Your task to perform on an android device: Go to Google maps Image 0: 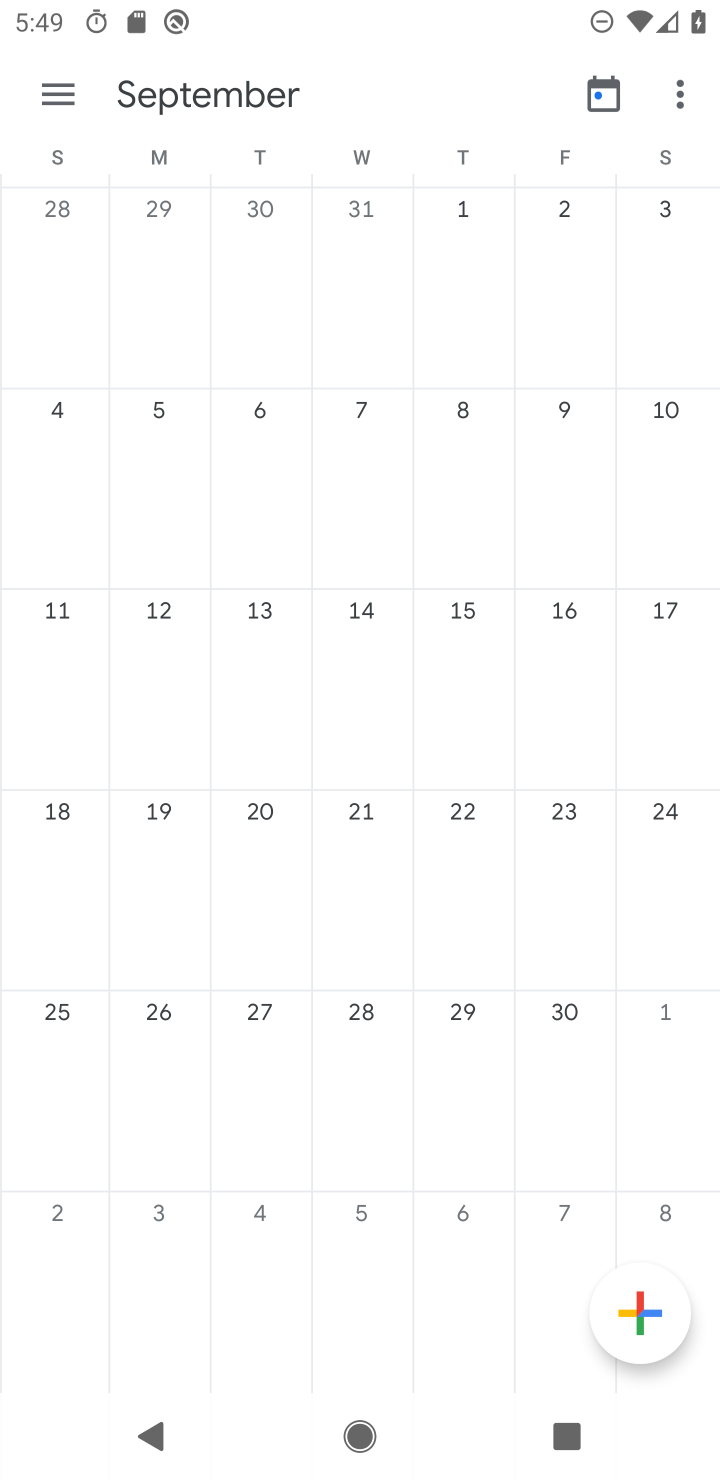
Step 0: press home button
Your task to perform on an android device: Go to Google maps Image 1: 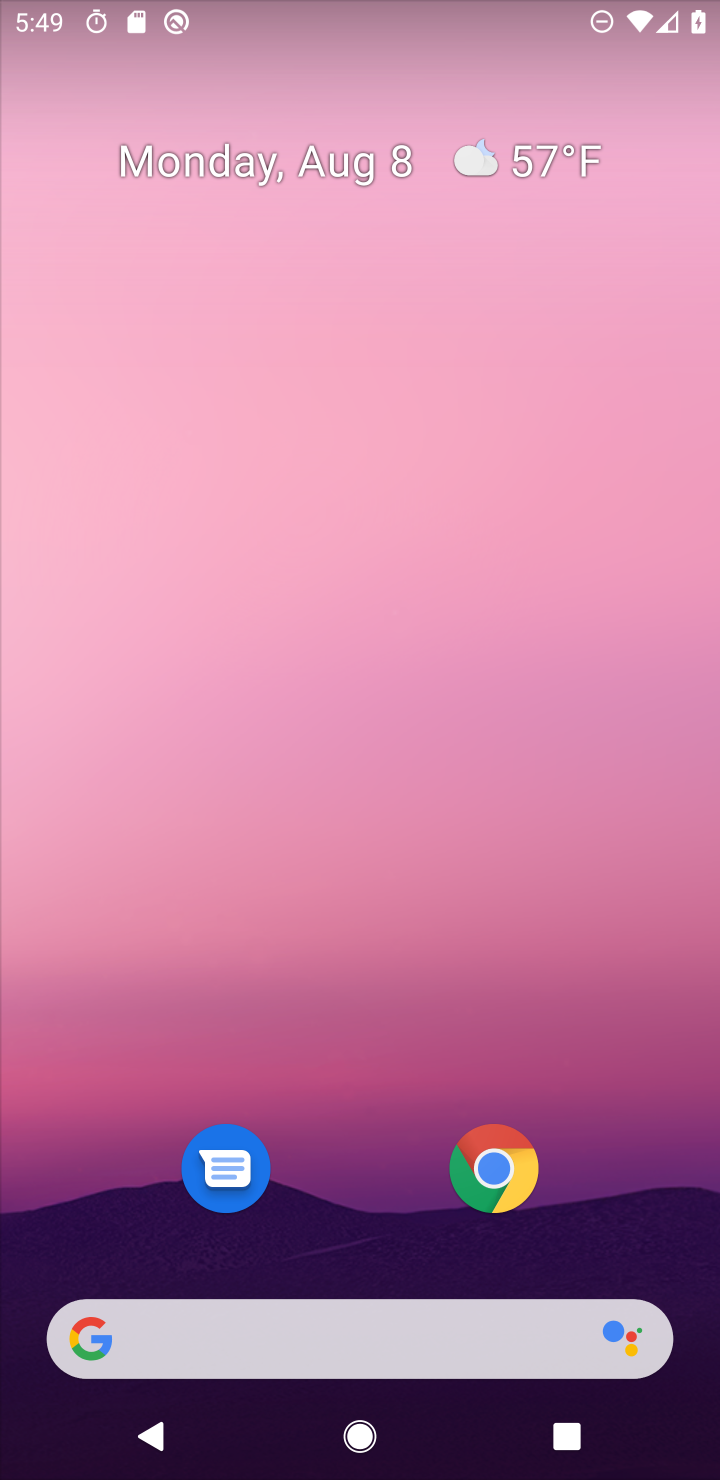
Step 1: drag from (351, 1300) to (267, 196)
Your task to perform on an android device: Go to Google maps Image 2: 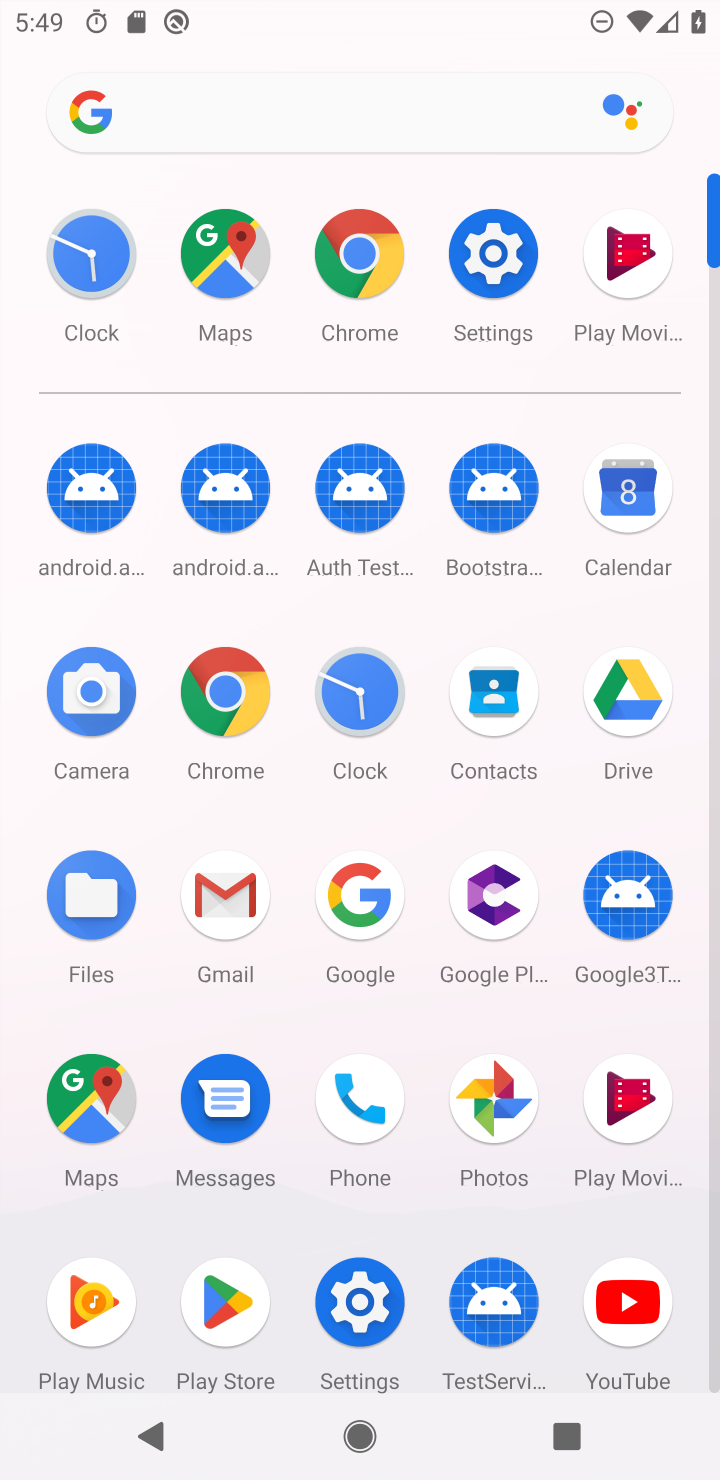
Step 2: click (107, 1086)
Your task to perform on an android device: Go to Google maps Image 3: 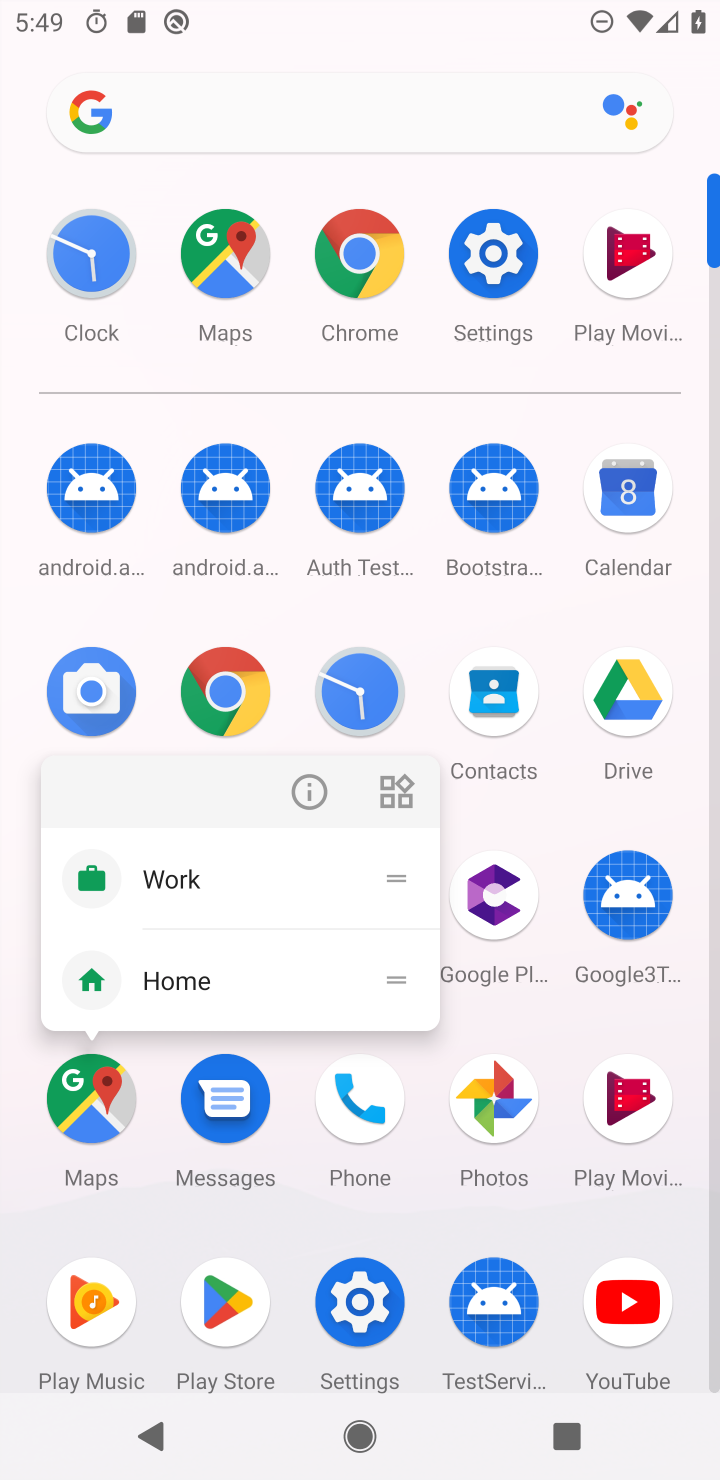
Step 3: click (125, 1122)
Your task to perform on an android device: Go to Google maps Image 4: 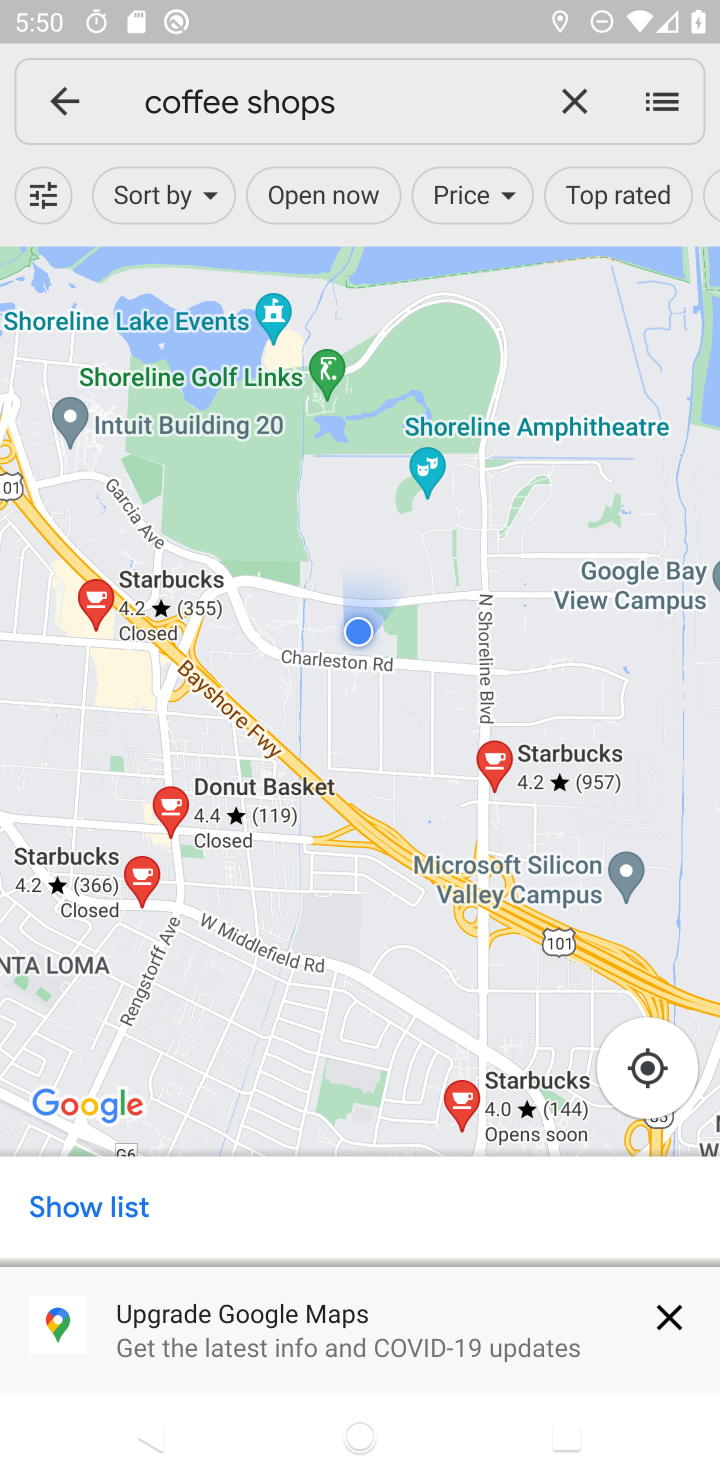
Step 4: task complete